Your task to perform on an android device: stop showing notifications on the lock screen Image 0: 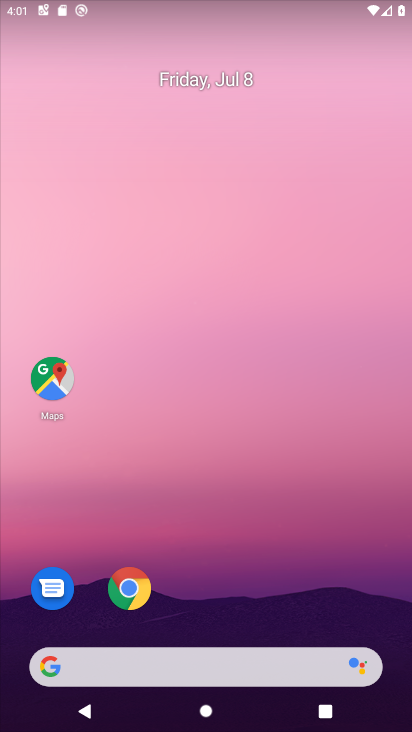
Step 0: drag from (216, 636) to (258, 5)
Your task to perform on an android device: stop showing notifications on the lock screen Image 1: 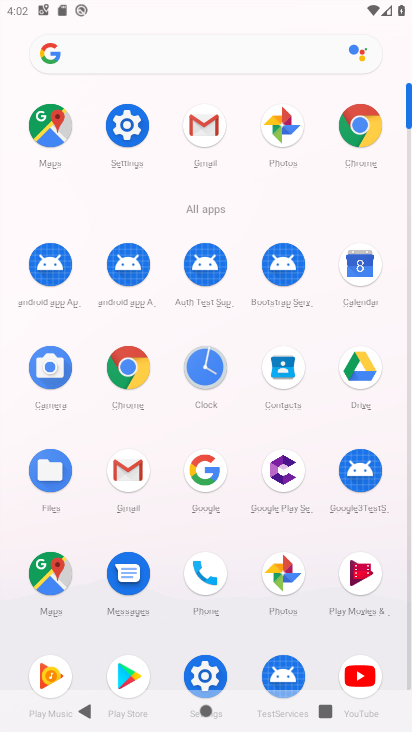
Step 1: click (196, 666)
Your task to perform on an android device: stop showing notifications on the lock screen Image 2: 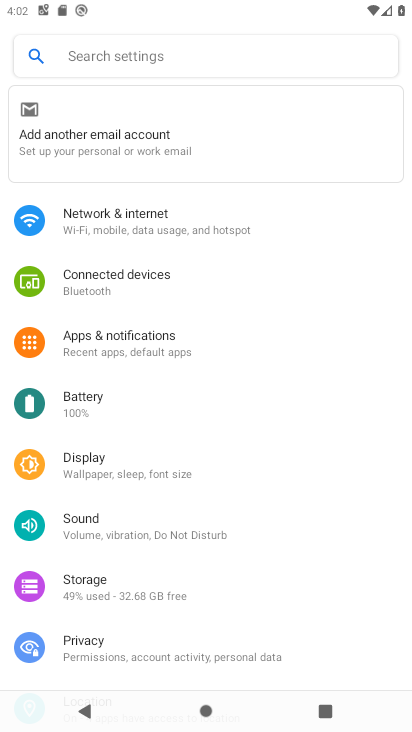
Step 2: click (144, 345)
Your task to perform on an android device: stop showing notifications on the lock screen Image 3: 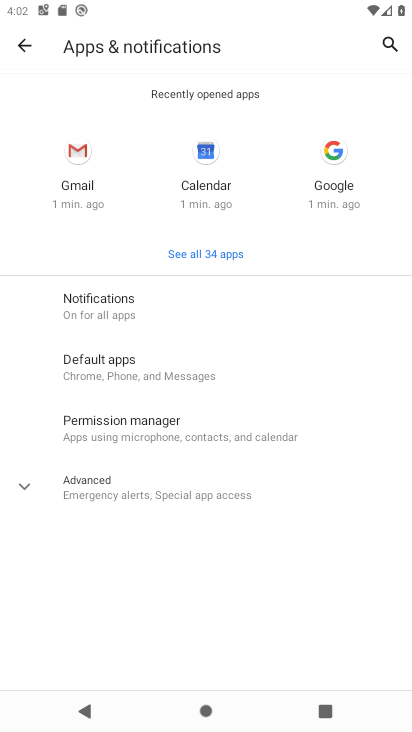
Step 3: click (121, 305)
Your task to perform on an android device: stop showing notifications on the lock screen Image 4: 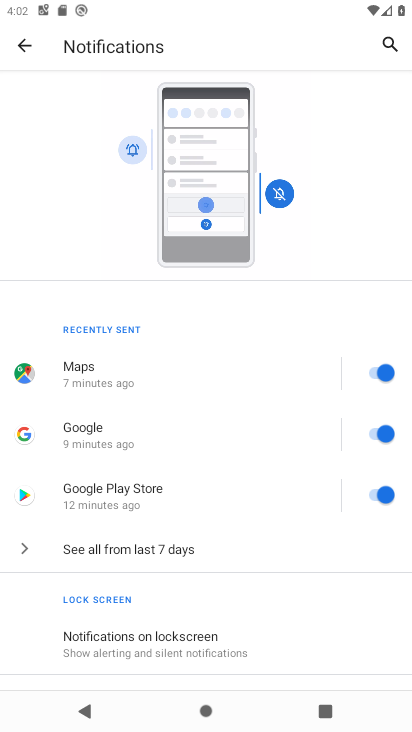
Step 4: drag from (201, 538) to (228, 210)
Your task to perform on an android device: stop showing notifications on the lock screen Image 5: 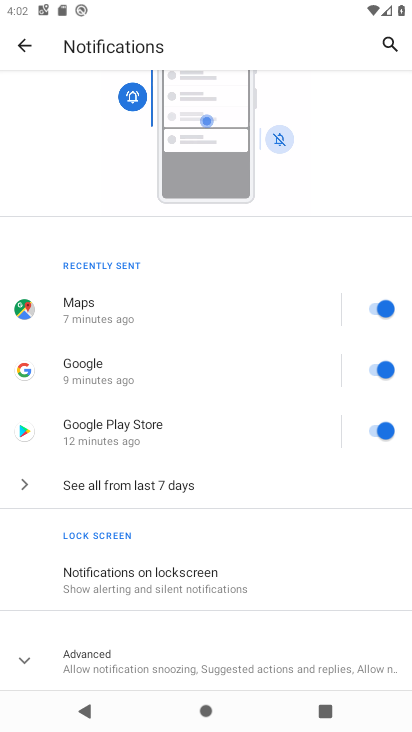
Step 5: drag from (195, 590) to (236, 371)
Your task to perform on an android device: stop showing notifications on the lock screen Image 6: 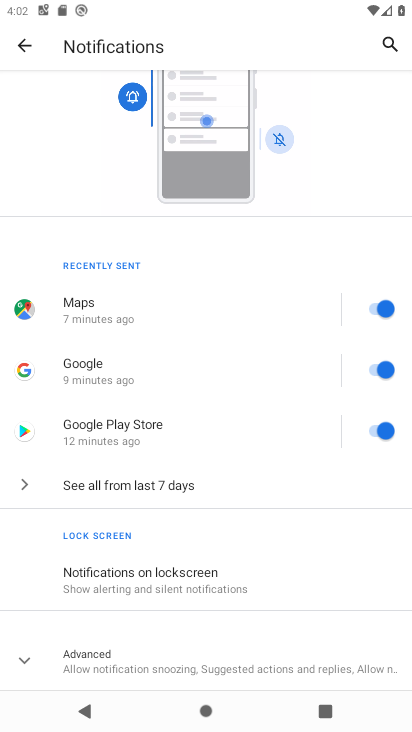
Step 6: click (207, 593)
Your task to perform on an android device: stop showing notifications on the lock screen Image 7: 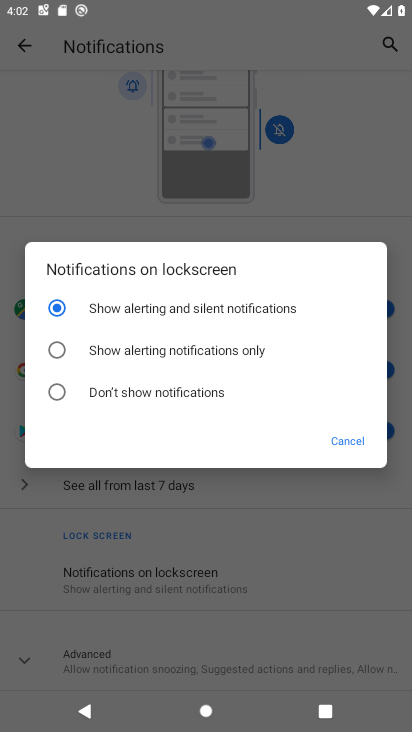
Step 7: click (186, 390)
Your task to perform on an android device: stop showing notifications on the lock screen Image 8: 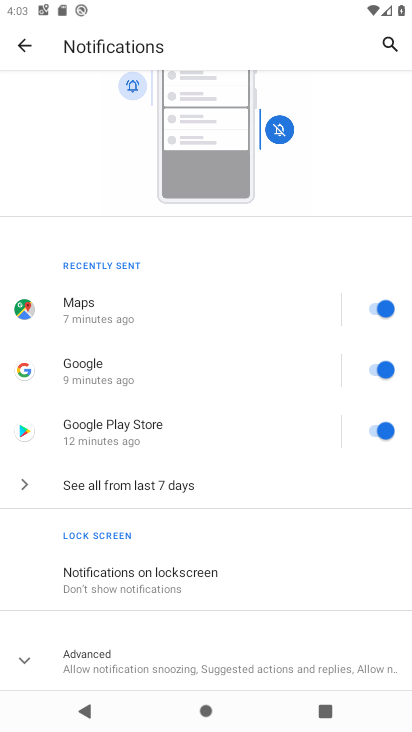
Step 8: task complete